Your task to perform on an android device: turn off picture-in-picture Image 0: 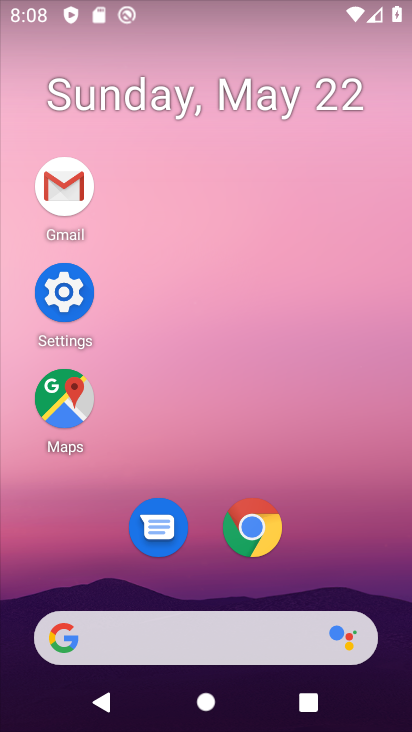
Step 0: click (255, 532)
Your task to perform on an android device: turn off picture-in-picture Image 1: 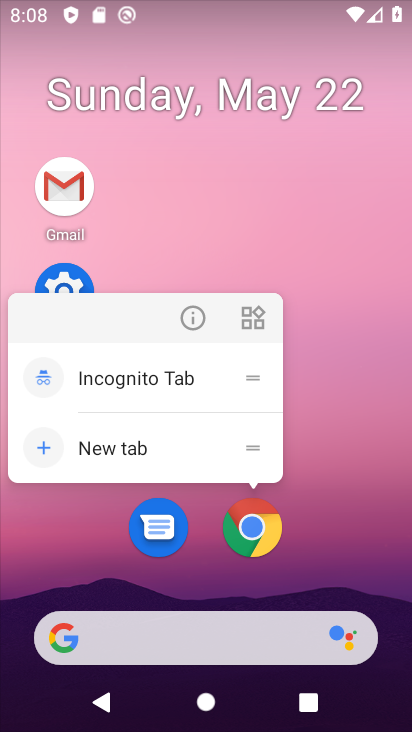
Step 1: click (187, 309)
Your task to perform on an android device: turn off picture-in-picture Image 2: 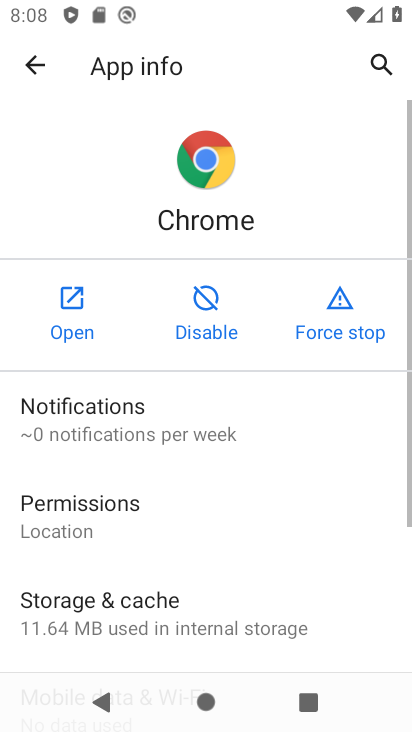
Step 2: drag from (200, 567) to (189, 101)
Your task to perform on an android device: turn off picture-in-picture Image 3: 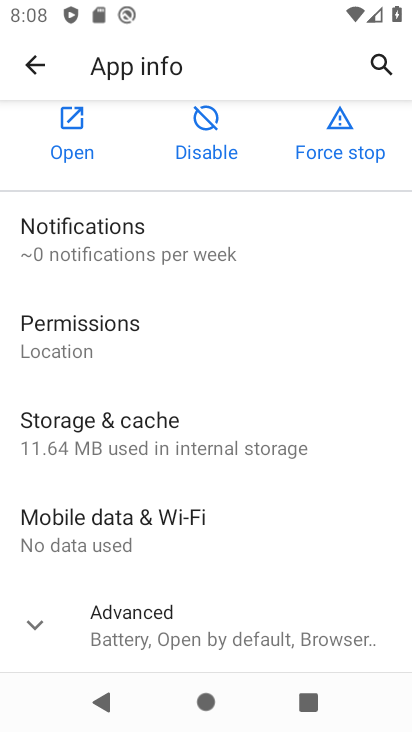
Step 3: click (210, 624)
Your task to perform on an android device: turn off picture-in-picture Image 4: 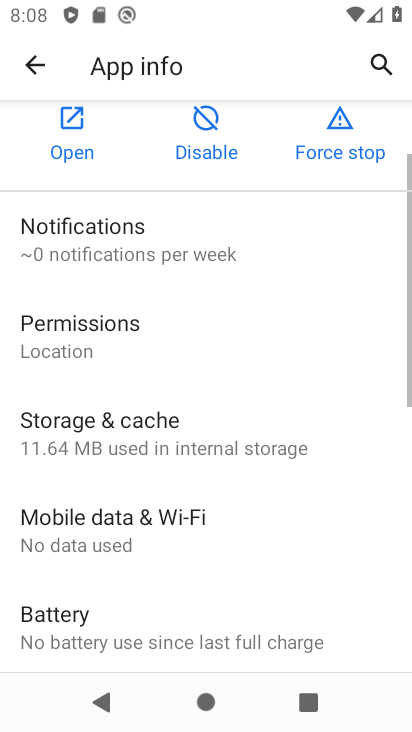
Step 4: drag from (210, 611) to (206, 84)
Your task to perform on an android device: turn off picture-in-picture Image 5: 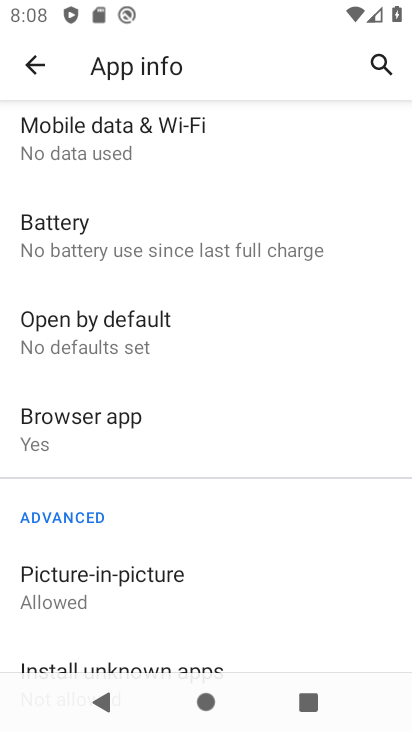
Step 5: click (238, 601)
Your task to perform on an android device: turn off picture-in-picture Image 6: 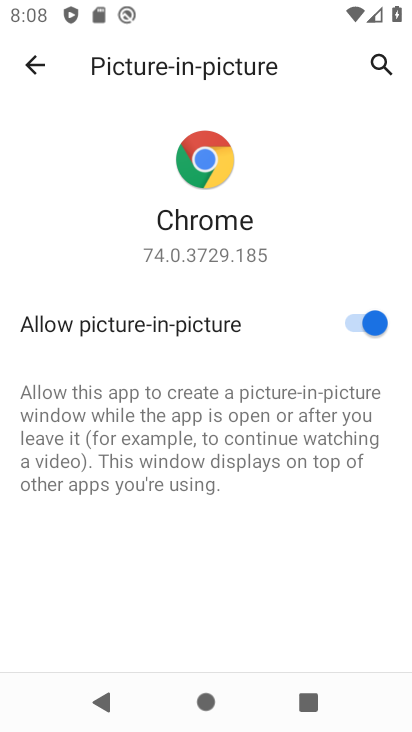
Step 6: click (362, 315)
Your task to perform on an android device: turn off picture-in-picture Image 7: 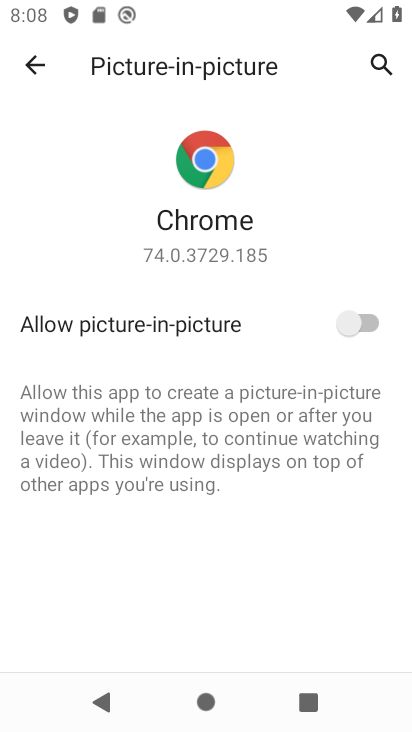
Step 7: task complete